Your task to perform on an android device: Open network settings Image 0: 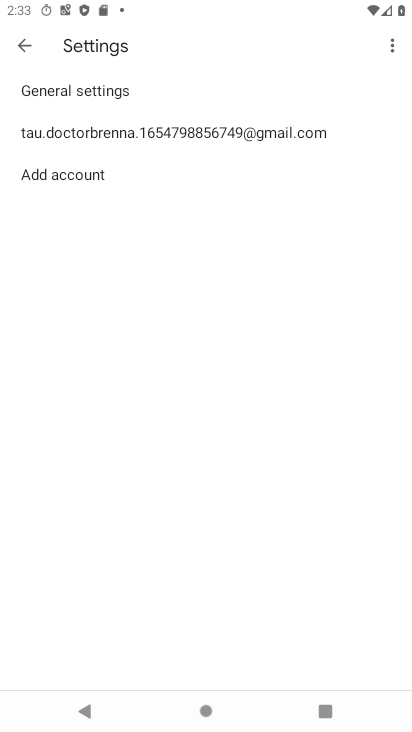
Step 0: press home button
Your task to perform on an android device: Open network settings Image 1: 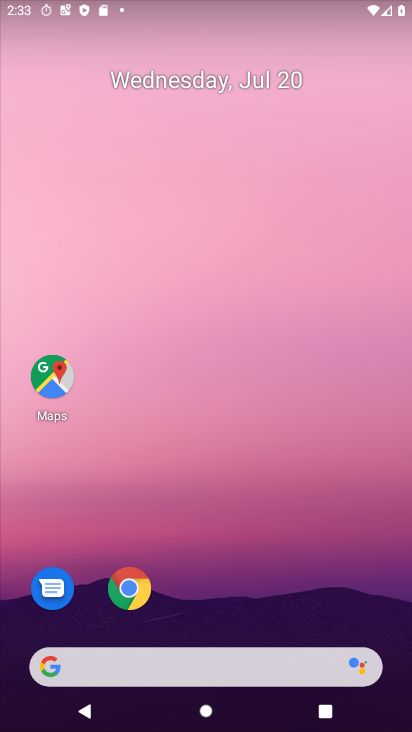
Step 1: drag from (301, 520) to (303, 1)
Your task to perform on an android device: Open network settings Image 2: 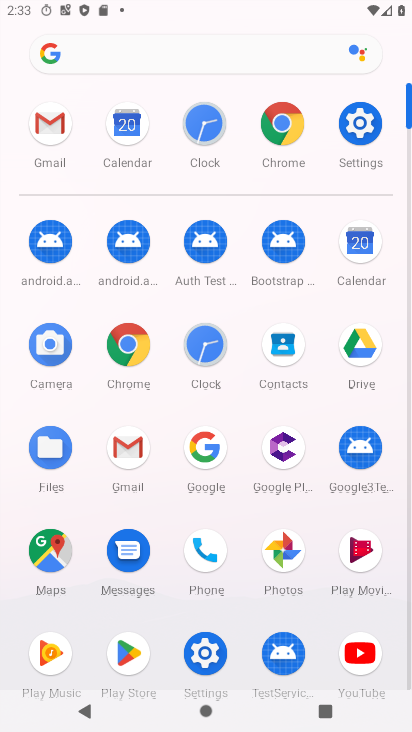
Step 2: click (355, 122)
Your task to perform on an android device: Open network settings Image 3: 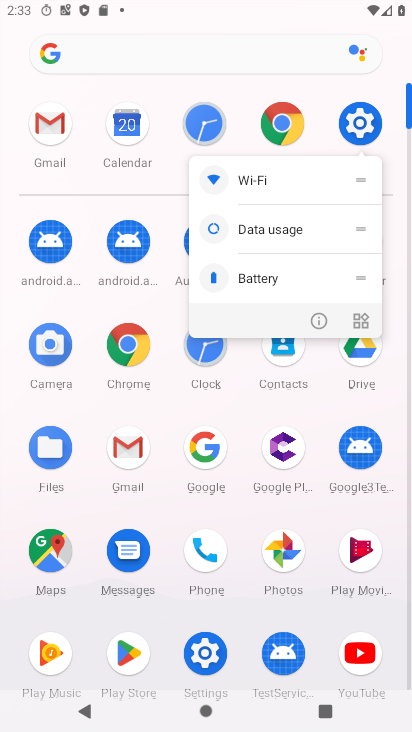
Step 3: click (355, 121)
Your task to perform on an android device: Open network settings Image 4: 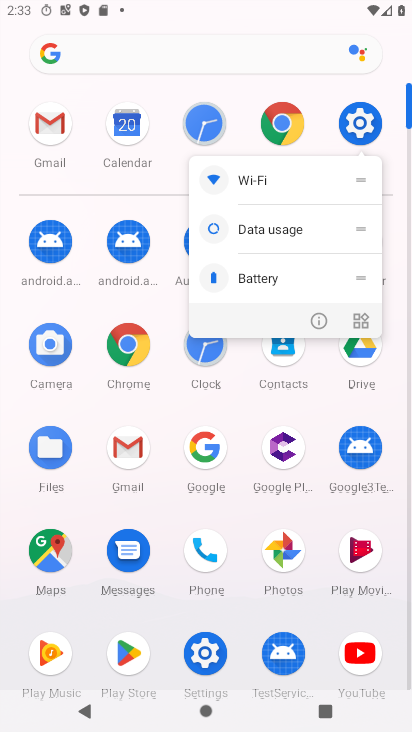
Step 4: click (355, 121)
Your task to perform on an android device: Open network settings Image 5: 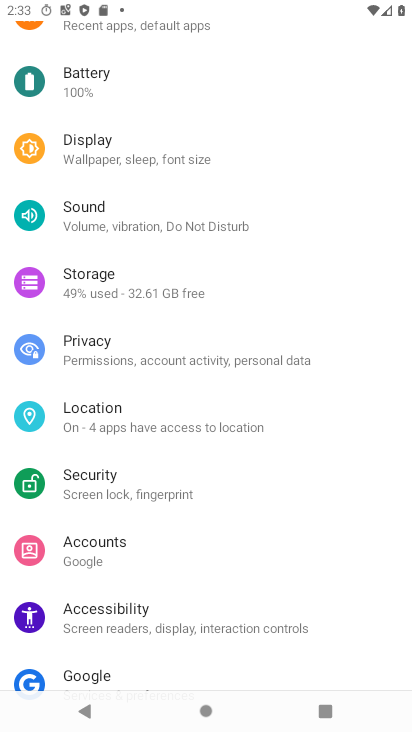
Step 5: drag from (355, 121) to (335, 644)
Your task to perform on an android device: Open network settings Image 6: 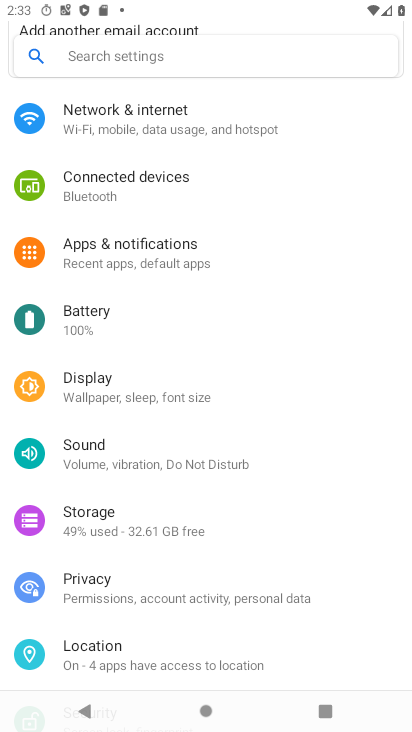
Step 6: drag from (256, 156) to (233, 635)
Your task to perform on an android device: Open network settings Image 7: 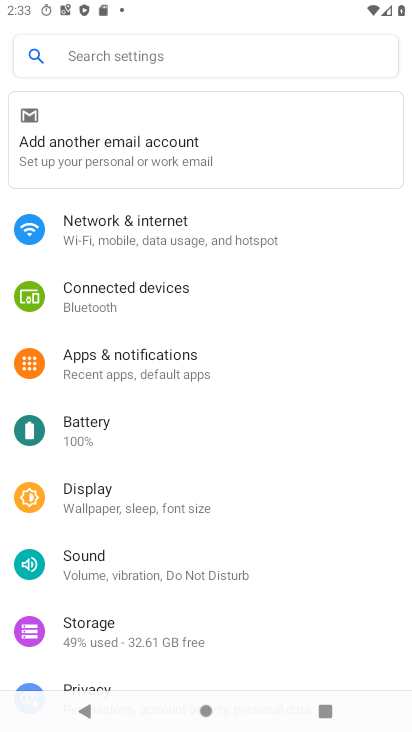
Step 7: click (164, 220)
Your task to perform on an android device: Open network settings Image 8: 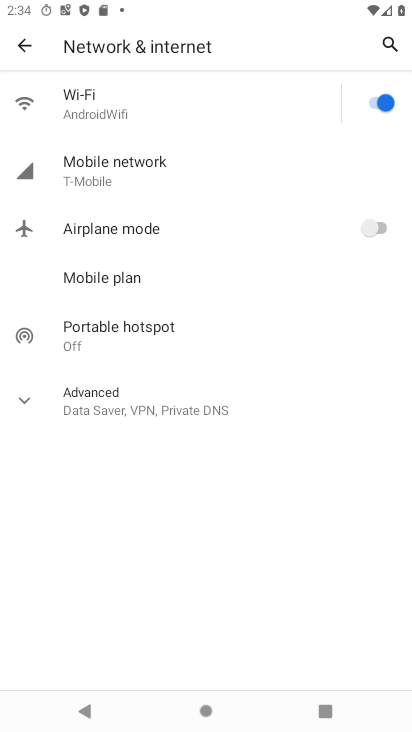
Step 8: task complete